Your task to perform on an android device: change the clock display to analog Image 0: 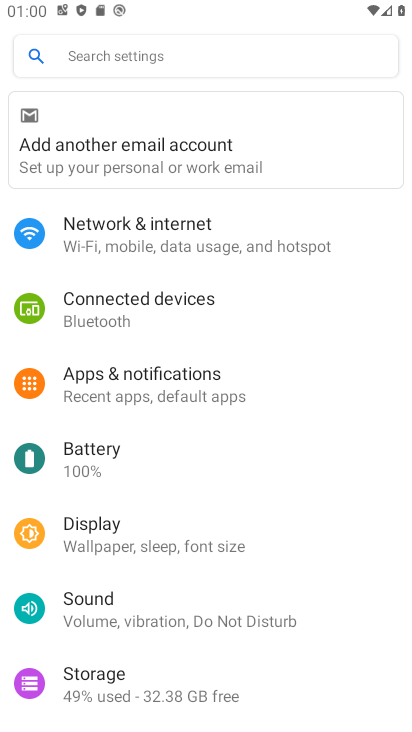
Step 0: press home button
Your task to perform on an android device: change the clock display to analog Image 1: 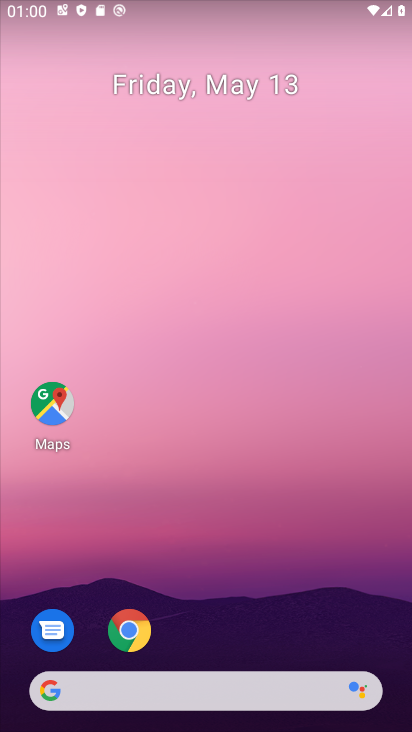
Step 1: drag from (220, 708) to (168, 467)
Your task to perform on an android device: change the clock display to analog Image 2: 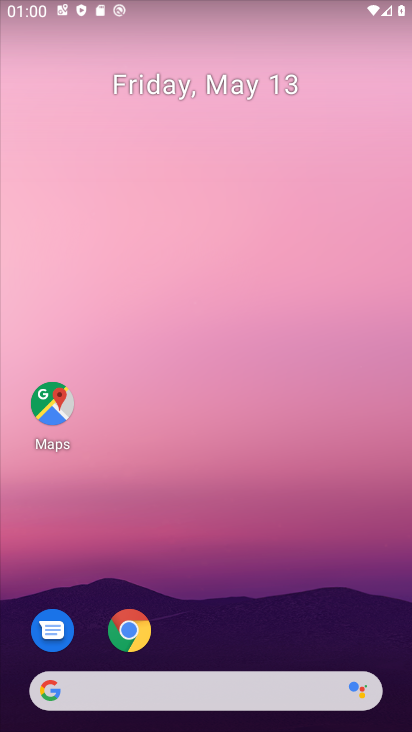
Step 2: drag from (231, 693) to (229, 195)
Your task to perform on an android device: change the clock display to analog Image 3: 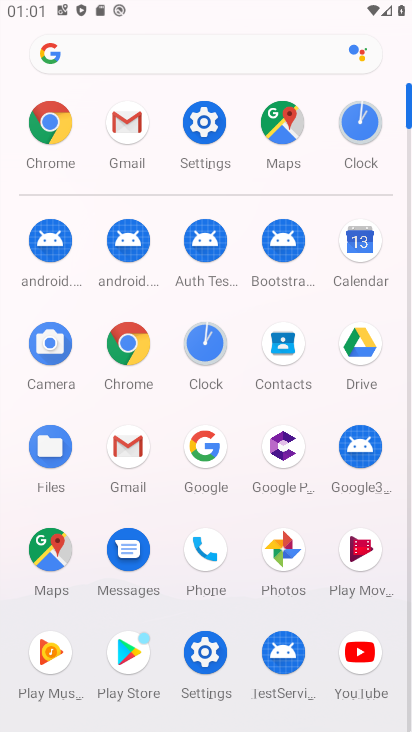
Step 3: click (207, 358)
Your task to perform on an android device: change the clock display to analog Image 4: 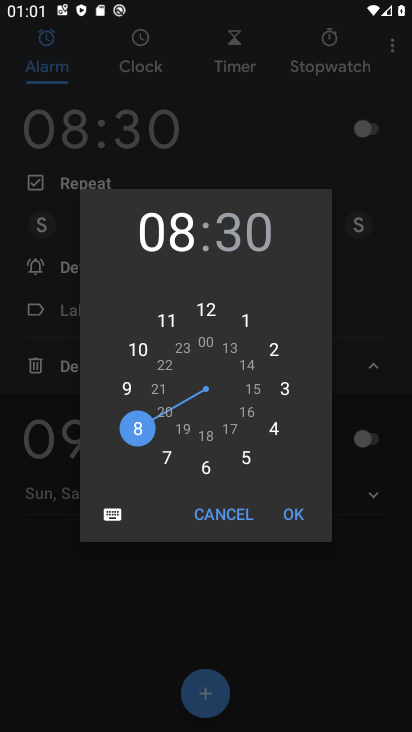
Step 4: click (155, 154)
Your task to perform on an android device: change the clock display to analog Image 5: 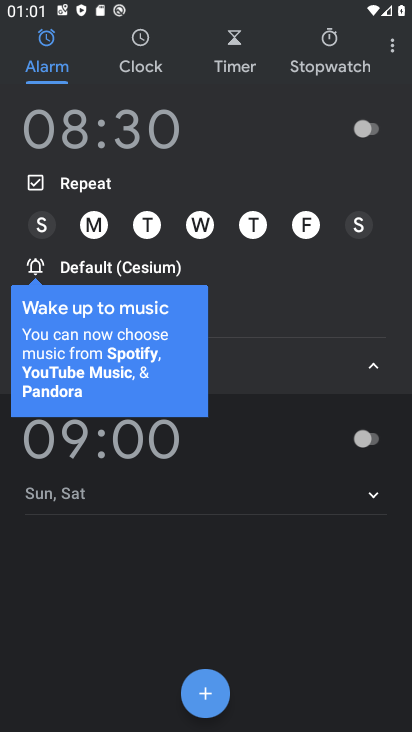
Step 5: click (386, 52)
Your task to perform on an android device: change the clock display to analog Image 6: 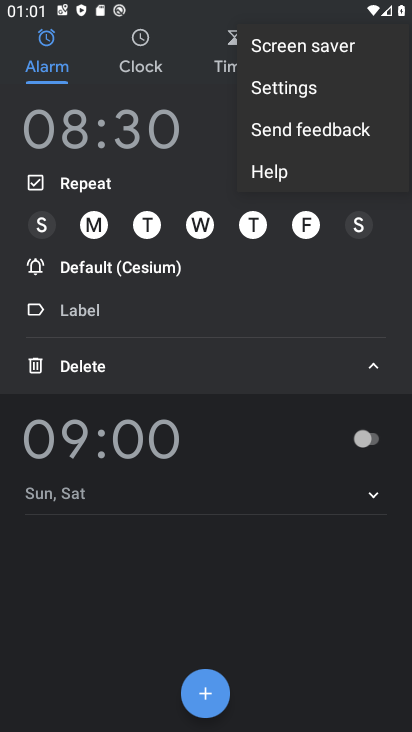
Step 6: click (294, 103)
Your task to perform on an android device: change the clock display to analog Image 7: 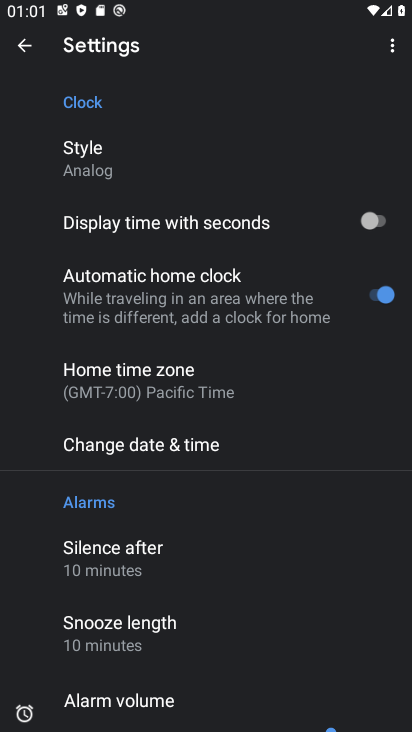
Step 7: click (156, 175)
Your task to perform on an android device: change the clock display to analog Image 8: 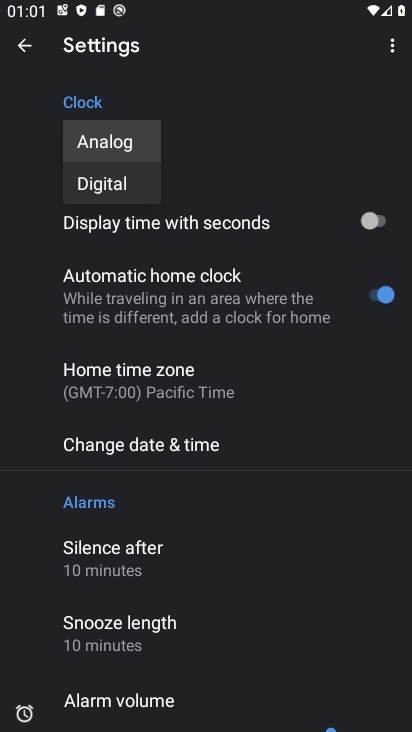
Step 8: click (141, 153)
Your task to perform on an android device: change the clock display to analog Image 9: 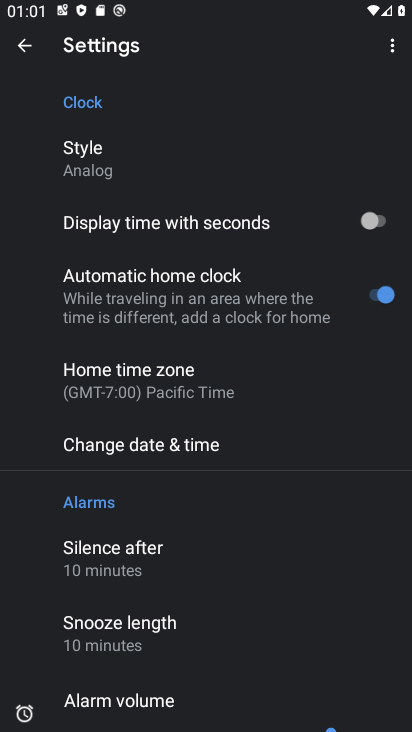
Step 9: task complete